Your task to perform on an android device: move a message to another label in the gmail app Image 0: 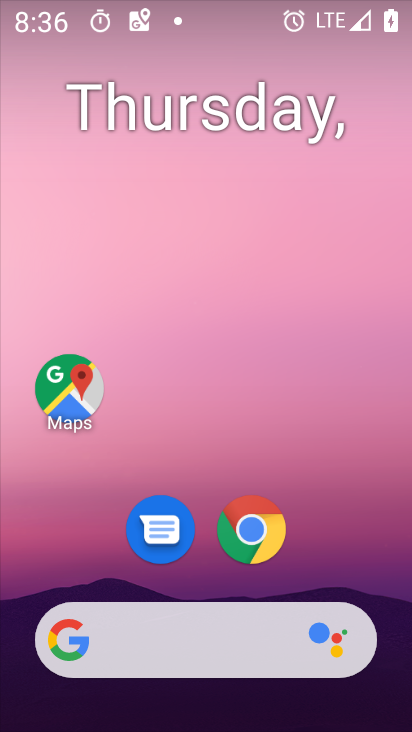
Step 0: drag from (354, 561) to (352, 88)
Your task to perform on an android device: move a message to another label in the gmail app Image 1: 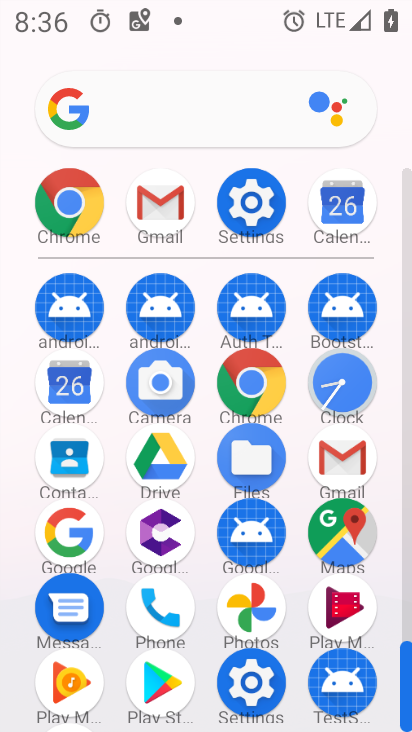
Step 1: click (353, 468)
Your task to perform on an android device: move a message to another label in the gmail app Image 2: 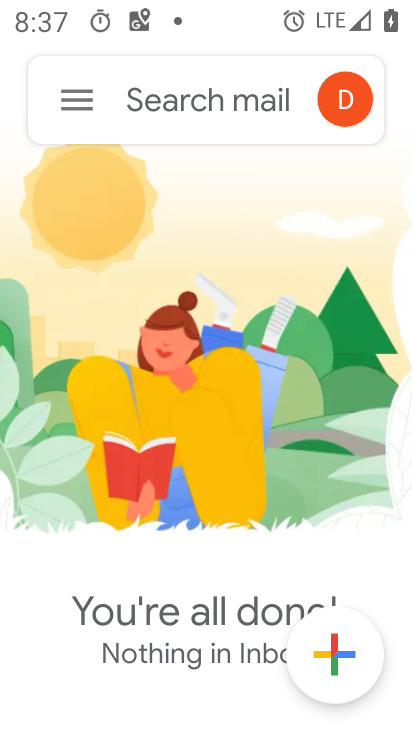
Step 2: task complete